Your task to perform on an android device: set an alarm Image 0: 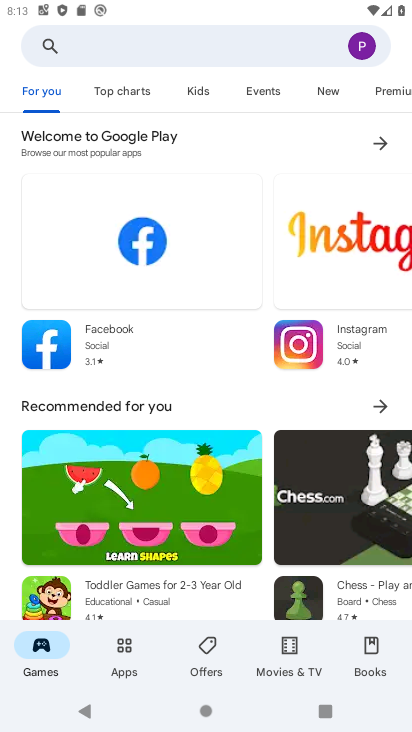
Step 0: press home button
Your task to perform on an android device: set an alarm Image 1: 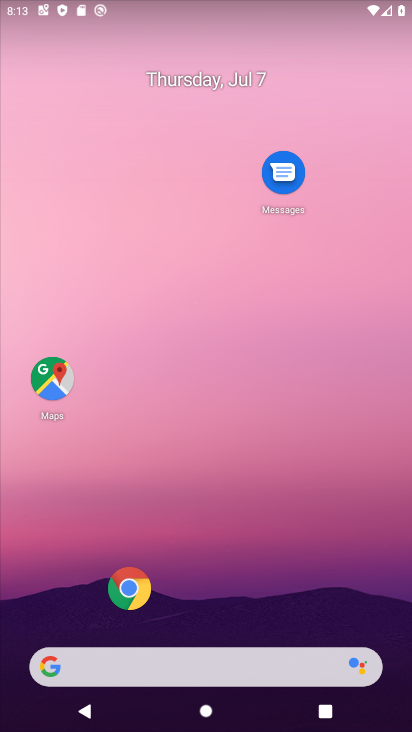
Step 1: drag from (6, 701) to (271, 3)
Your task to perform on an android device: set an alarm Image 2: 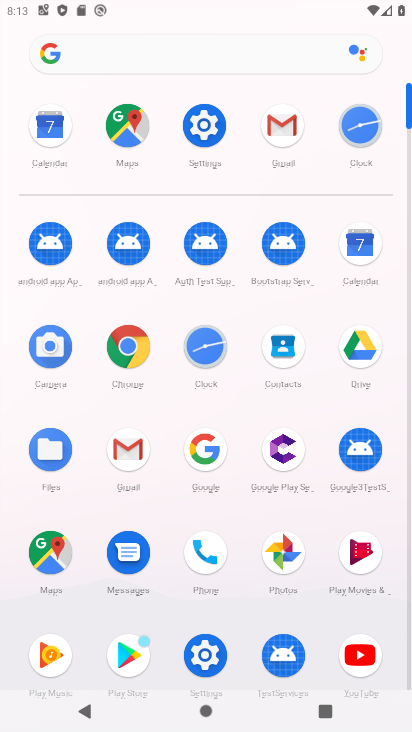
Step 2: click (200, 647)
Your task to perform on an android device: set an alarm Image 3: 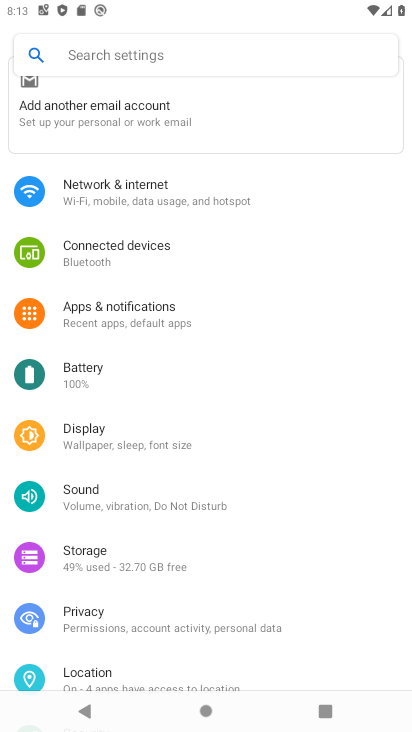
Step 3: press home button
Your task to perform on an android device: set an alarm Image 4: 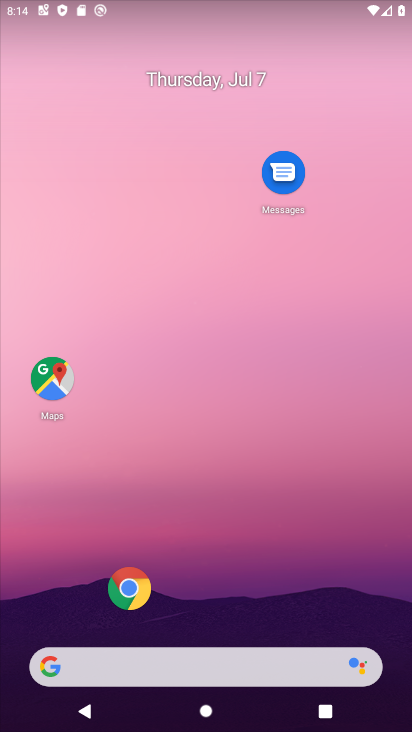
Step 4: drag from (24, 697) to (300, 28)
Your task to perform on an android device: set an alarm Image 5: 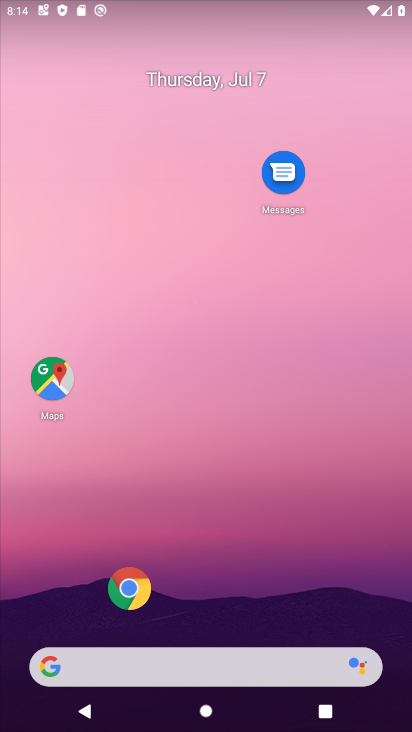
Step 5: drag from (24, 700) to (319, 2)
Your task to perform on an android device: set an alarm Image 6: 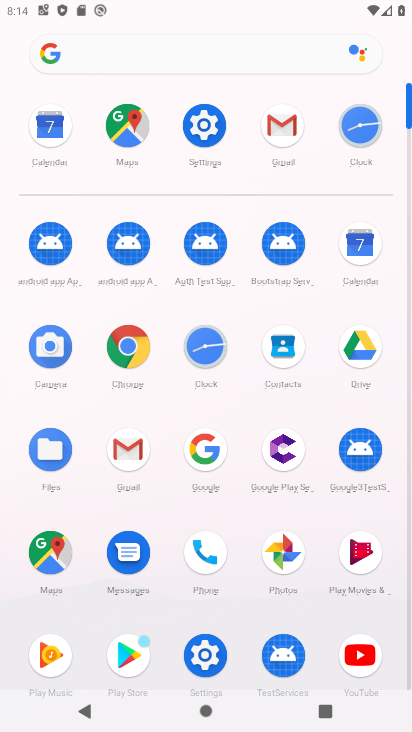
Step 6: click (208, 356)
Your task to perform on an android device: set an alarm Image 7: 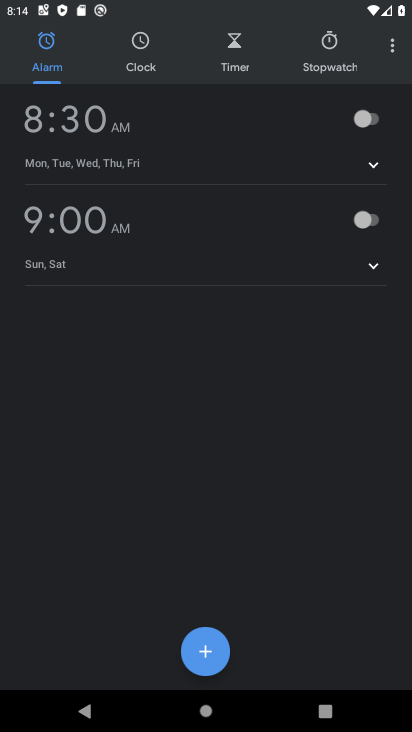
Step 7: click (368, 120)
Your task to perform on an android device: set an alarm Image 8: 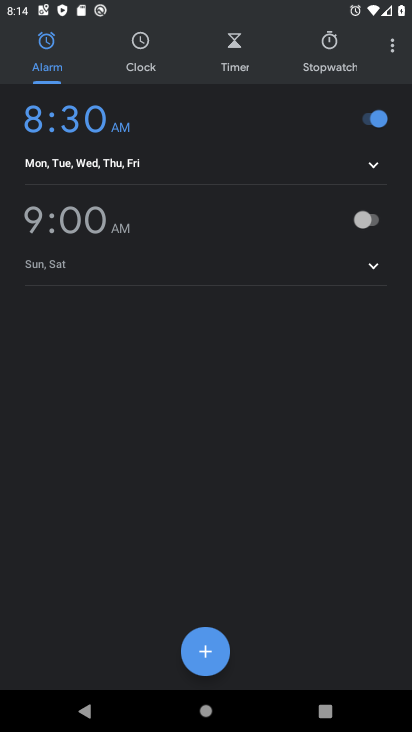
Step 8: task complete